Your task to perform on an android device: Open ESPN.com Image 0: 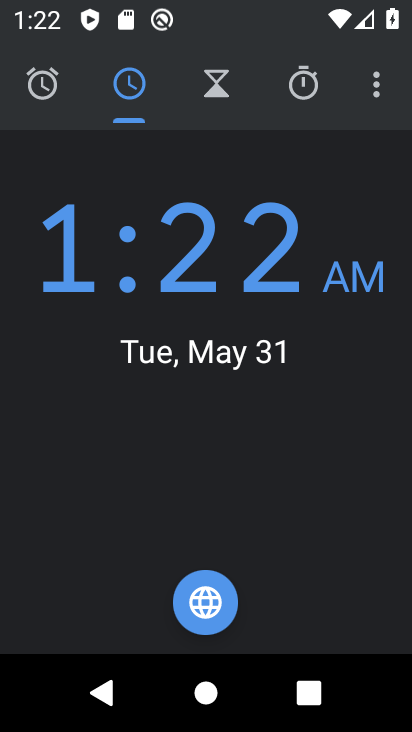
Step 0: task complete